Your task to perform on an android device: visit the assistant section in the google photos Image 0: 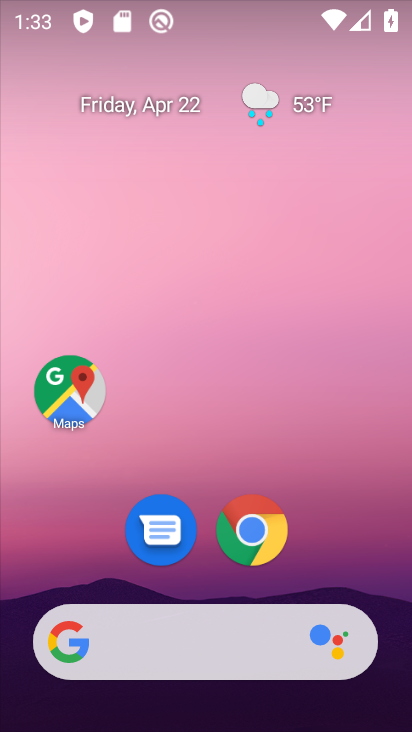
Step 0: drag from (265, 609) to (271, 124)
Your task to perform on an android device: visit the assistant section in the google photos Image 1: 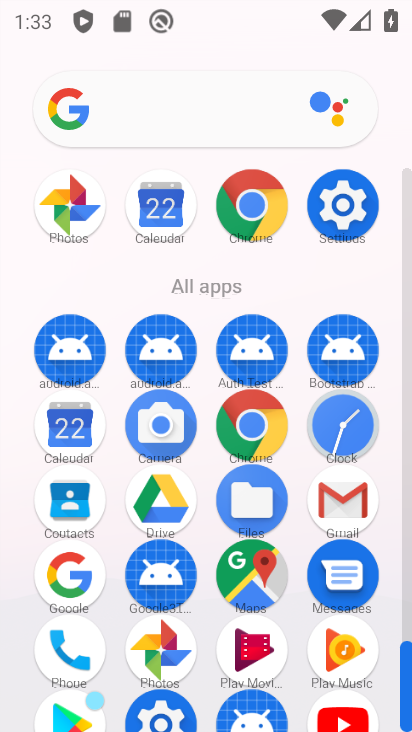
Step 1: click (146, 634)
Your task to perform on an android device: visit the assistant section in the google photos Image 2: 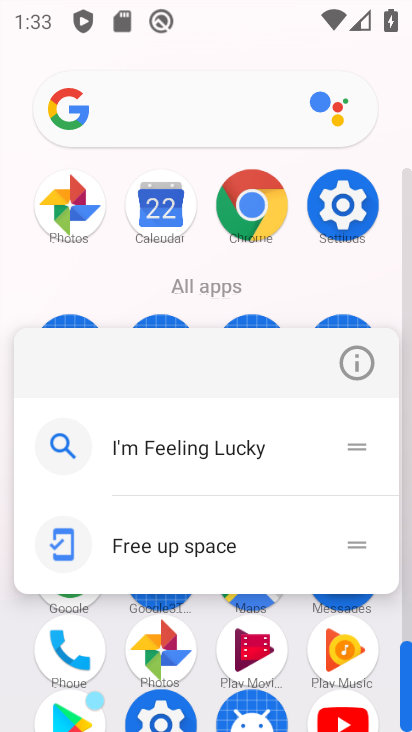
Step 2: click (154, 641)
Your task to perform on an android device: visit the assistant section in the google photos Image 3: 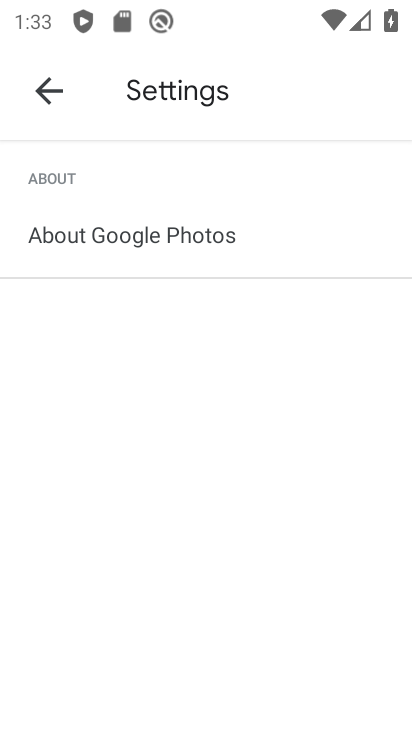
Step 3: click (48, 92)
Your task to perform on an android device: visit the assistant section in the google photos Image 4: 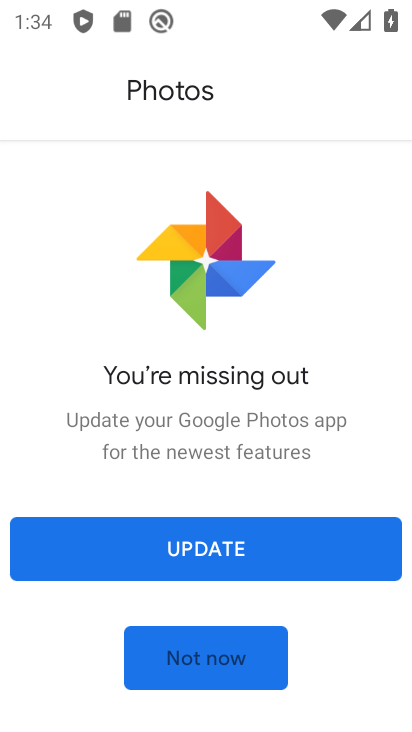
Step 4: click (288, 562)
Your task to perform on an android device: visit the assistant section in the google photos Image 5: 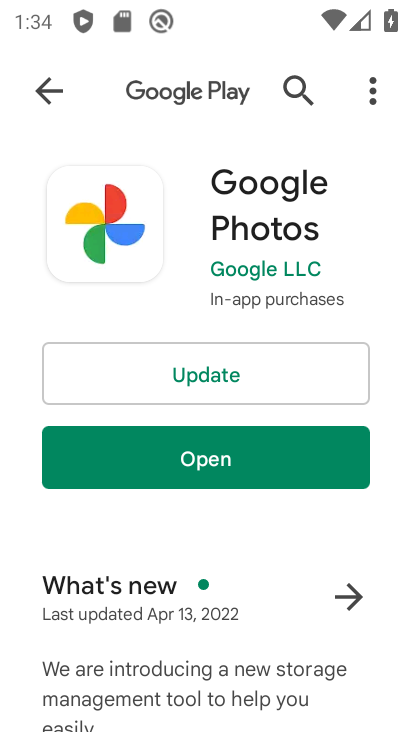
Step 5: click (185, 386)
Your task to perform on an android device: visit the assistant section in the google photos Image 6: 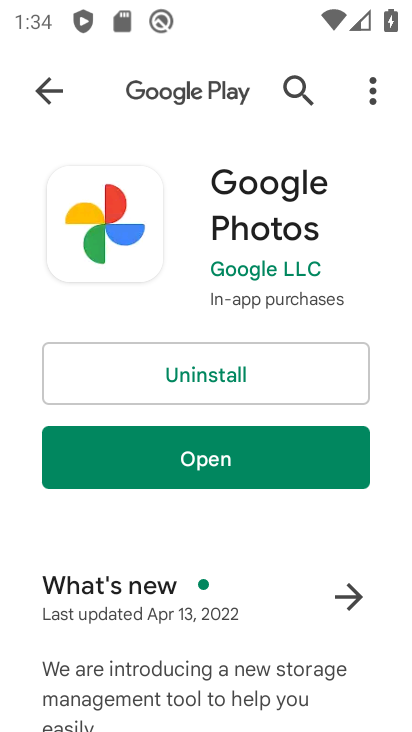
Step 6: click (231, 458)
Your task to perform on an android device: visit the assistant section in the google photos Image 7: 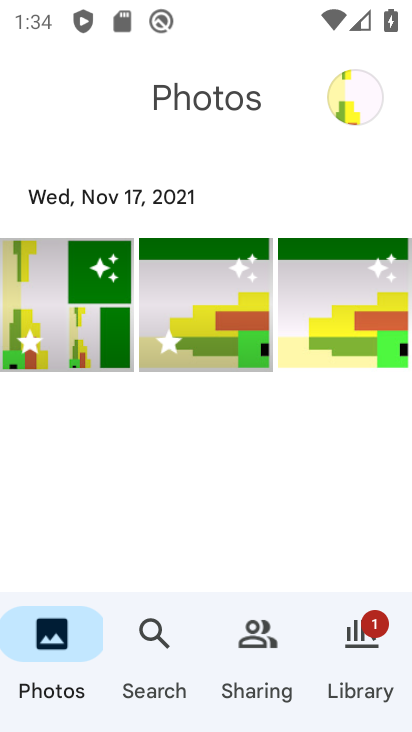
Step 7: task complete